Your task to perform on an android device: Open Google Image 0: 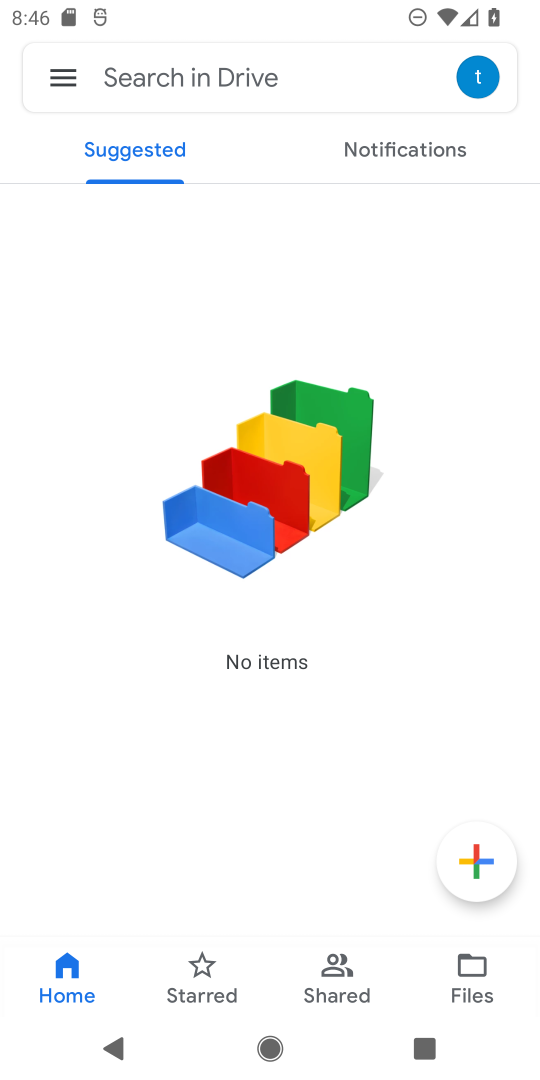
Step 0: press home button
Your task to perform on an android device: Open Google Image 1: 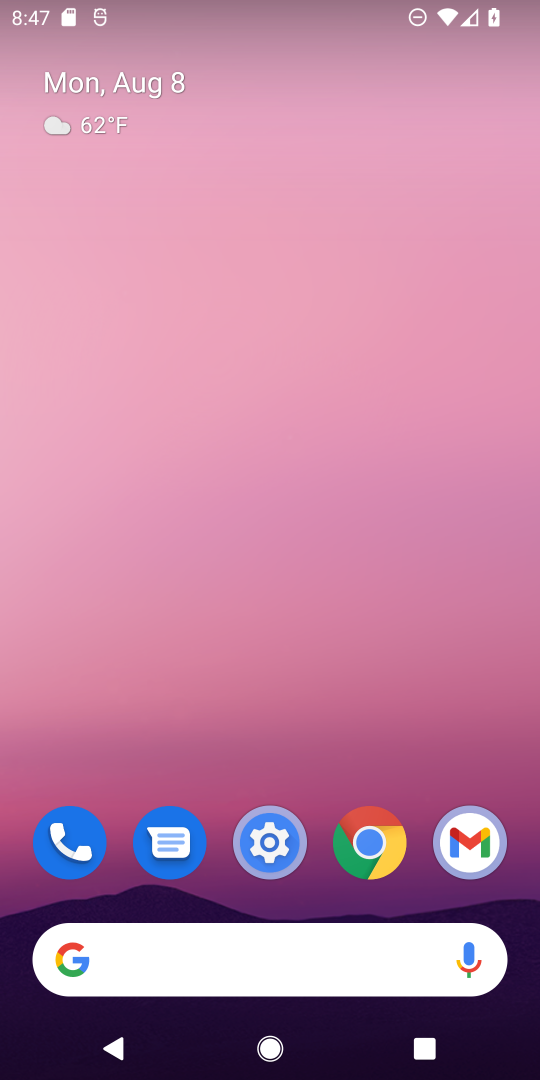
Step 1: drag from (285, 745) to (351, 1)
Your task to perform on an android device: Open Google Image 2: 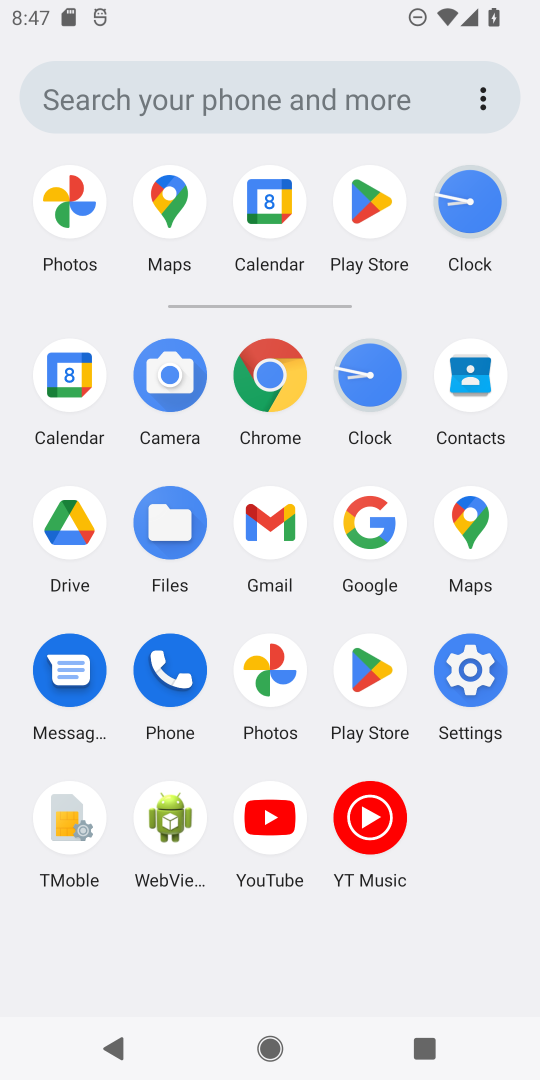
Step 2: click (365, 521)
Your task to perform on an android device: Open Google Image 3: 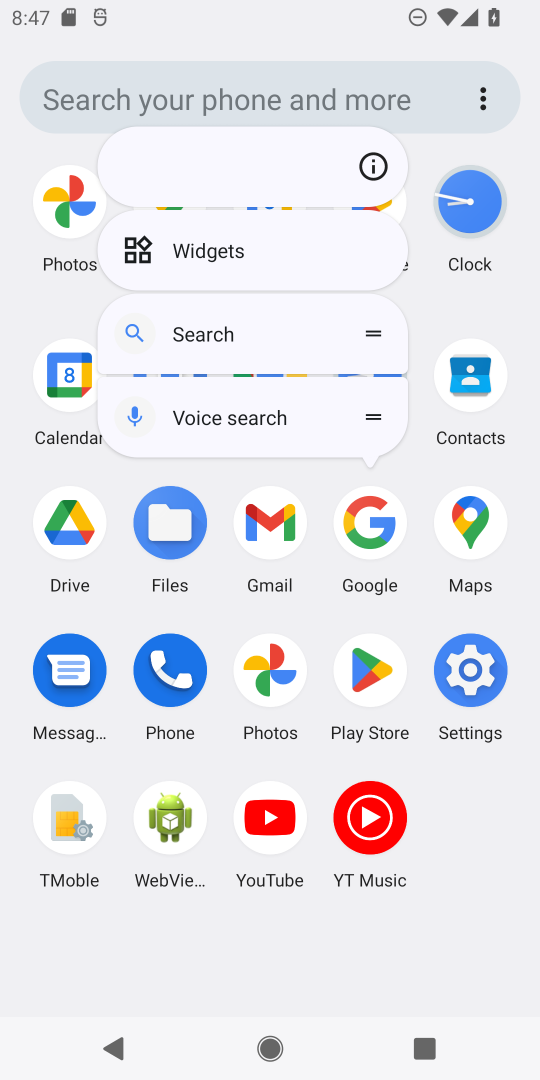
Step 3: click (365, 521)
Your task to perform on an android device: Open Google Image 4: 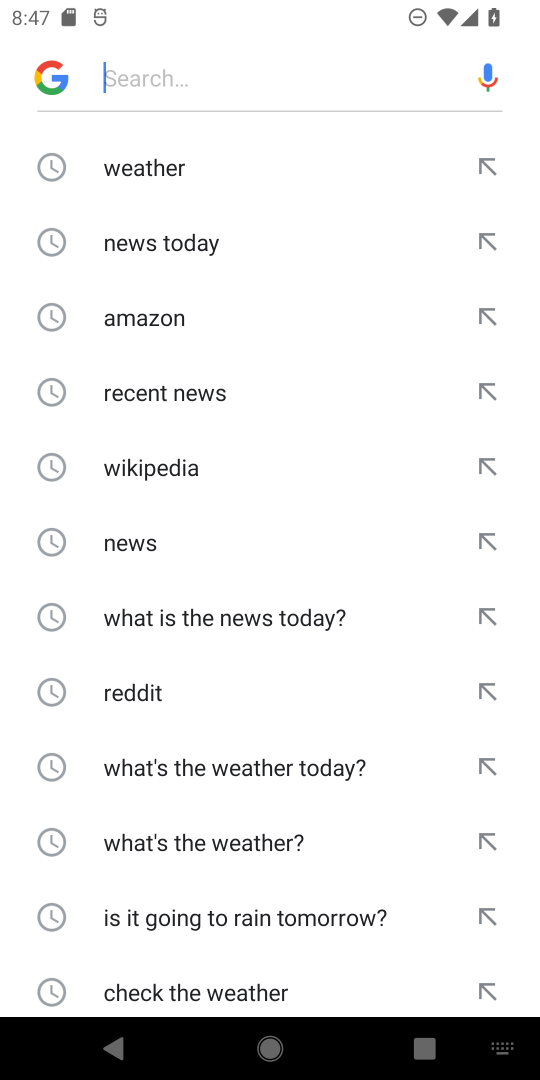
Step 4: click (56, 80)
Your task to perform on an android device: Open Google Image 5: 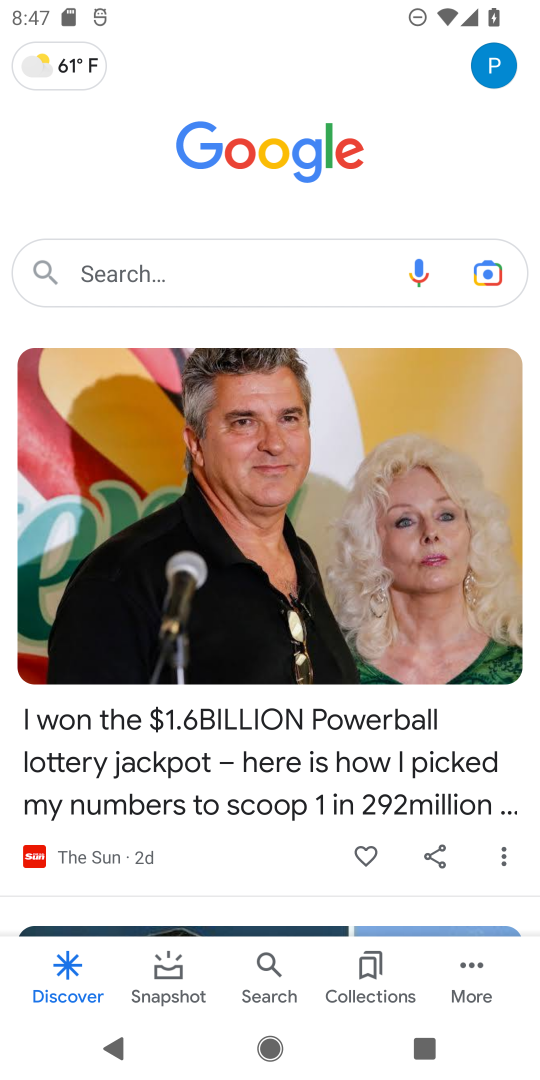
Step 5: task complete